Your task to perform on an android device: Open Youtube and go to "Your channel" Image 0: 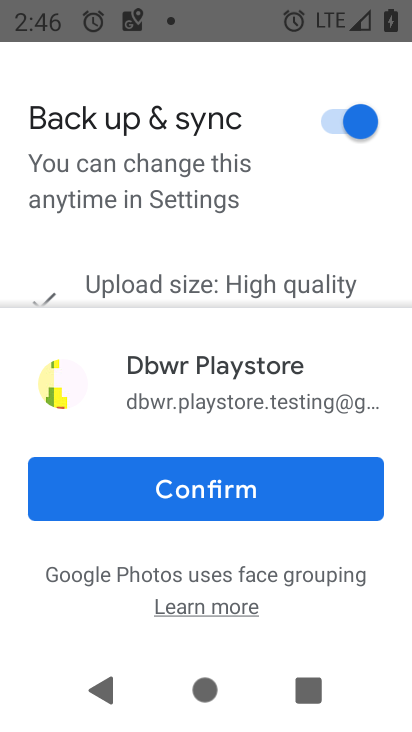
Step 0: press home button
Your task to perform on an android device: Open Youtube and go to "Your channel" Image 1: 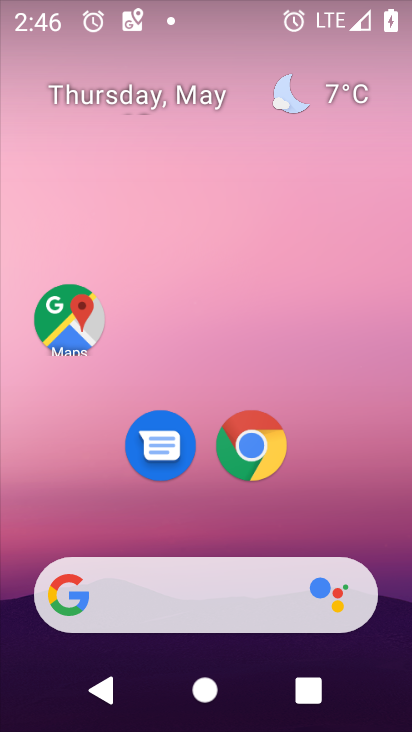
Step 1: drag from (381, 518) to (374, 7)
Your task to perform on an android device: Open Youtube and go to "Your channel" Image 2: 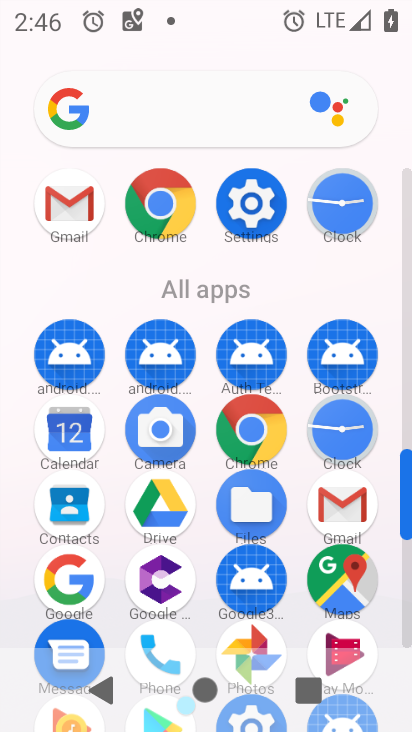
Step 2: drag from (403, 489) to (402, 437)
Your task to perform on an android device: Open Youtube and go to "Your channel" Image 3: 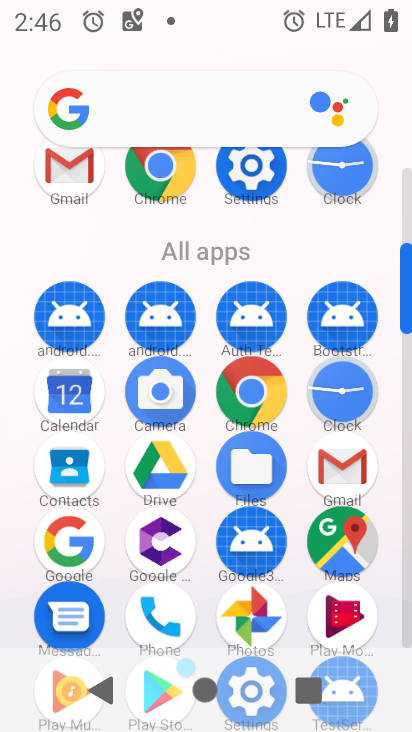
Step 3: drag from (403, 449) to (403, 342)
Your task to perform on an android device: Open Youtube and go to "Your channel" Image 4: 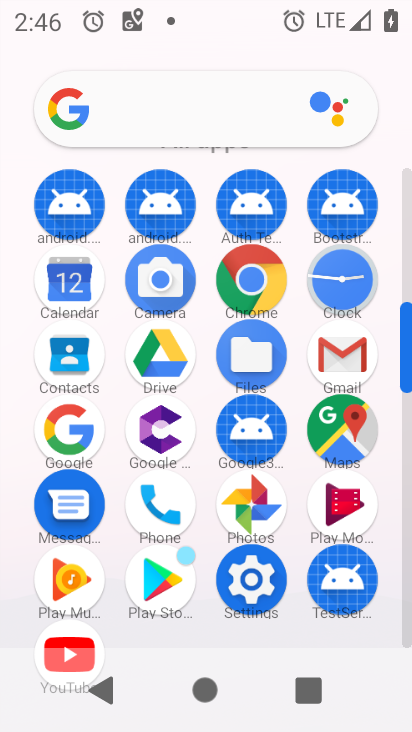
Step 4: click (75, 636)
Your task to perform on an android device: Open Youtube and go to "Your channel" Image 5: 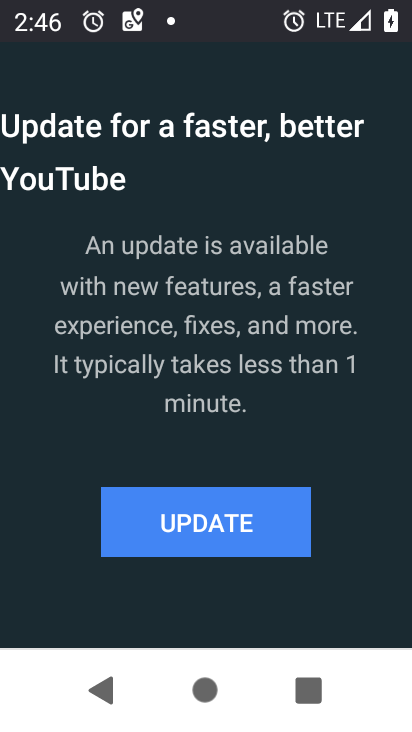
Step 5: click (224, 518)
Your task to perform on an android device: Open Youtube and go to "Your channel" Image 6: 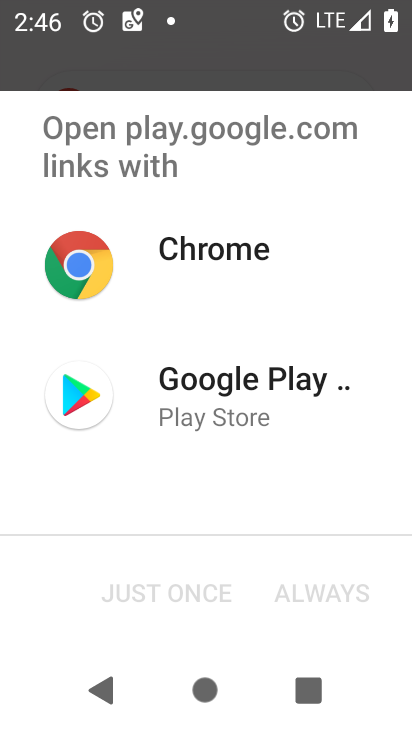
Step 6: click (190, 414)
Your task to perform on an android device: Open Youtube and go to "Your channel" Image 7: 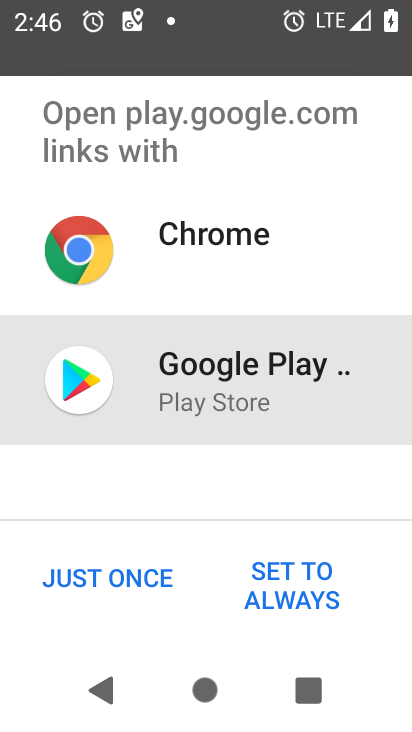
Step 7: click (110, 580)
Your task to perform on an android device: Open Youtube and go to "Your channel" Image 8: 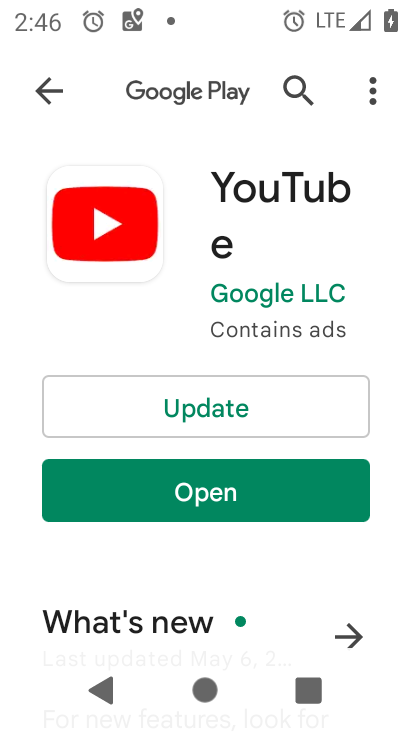
Step 8: click (217, 407)
Your task to perform on an android device: Open Youtube and go to "Your channel" Image 9: 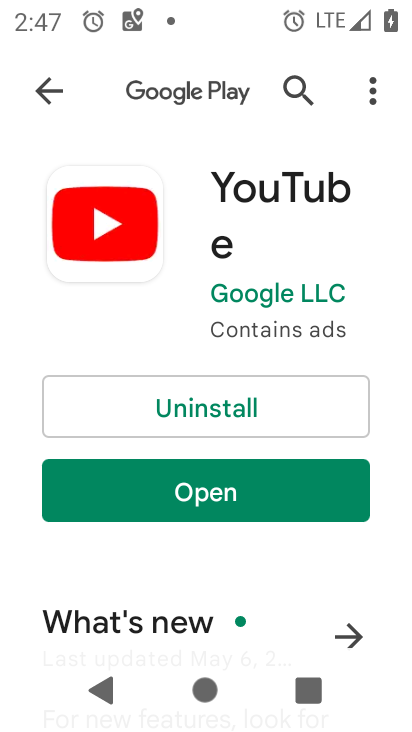
Step 9: click (209, 494)
Your task to perform on an android device: Open Youtube and go to "Your channel" Image 10: 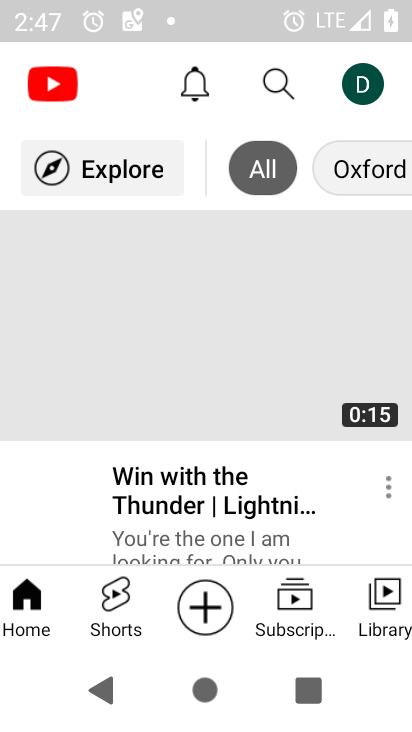
Step 10: click (363, 90)
Your task to perform on an android device: Open Youtube and go to "Your channel" Image 11: 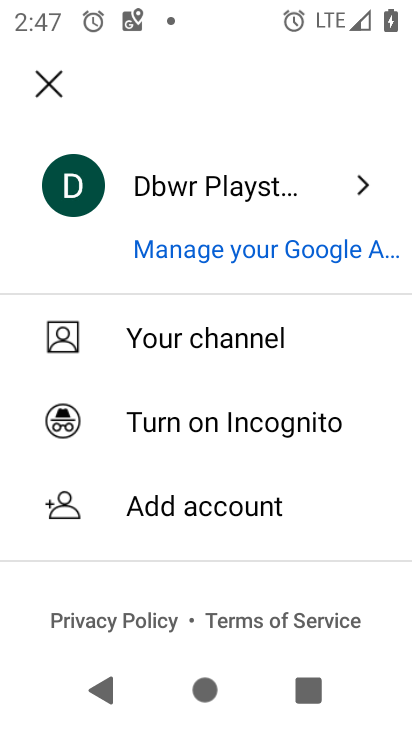
Step 11: click (200, 338)
Your task to perform on an android device: Open Youtube and go to "Your channel" Image 12: 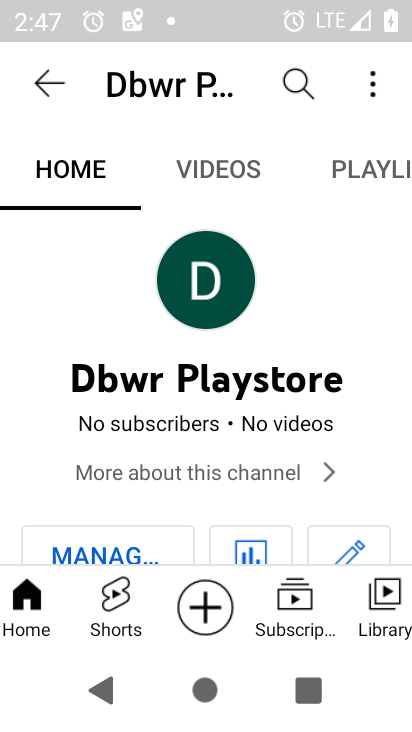
Step 12: task complete